Your task to perform on an android device: clear history in the chrome app Image 0: 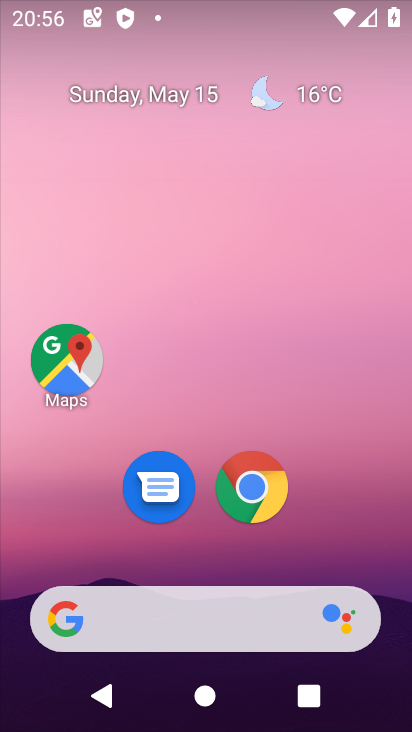
Step 0: click (246, 483)
Your task to perform on an android device: clear history in the chrome app Image 1: 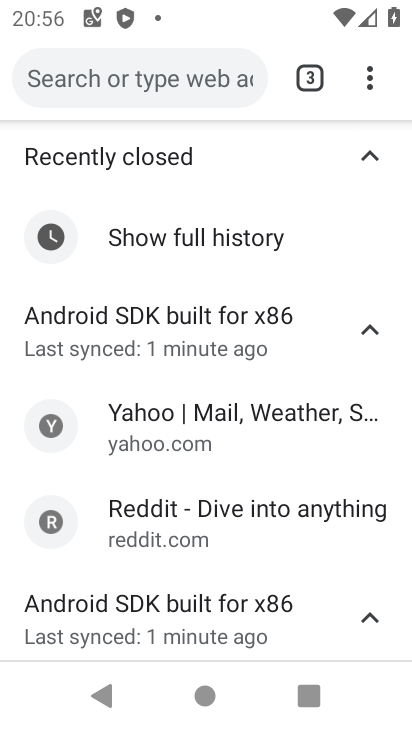
Step 1: click (366, 69)
Your task to perform on an android device: clear history in the chrome app Image 2: 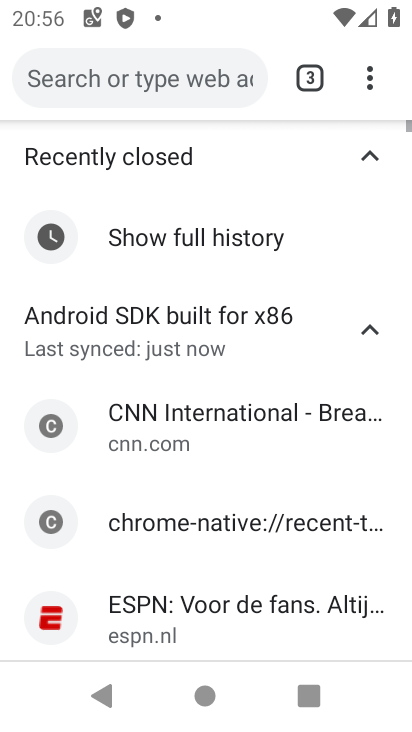
Step 2: click (371, 74)
Your task to perform on an android device: clear history in the chrome app Image 3: 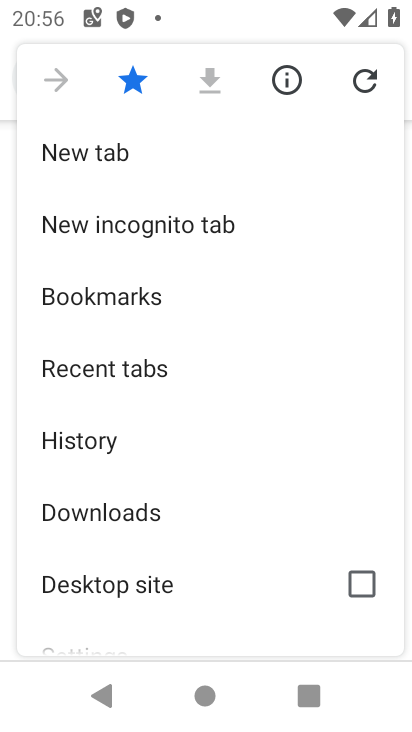
Step 3: click (72, 440)
Your task to perform on an android device: clear history in the chrome app Image 4: 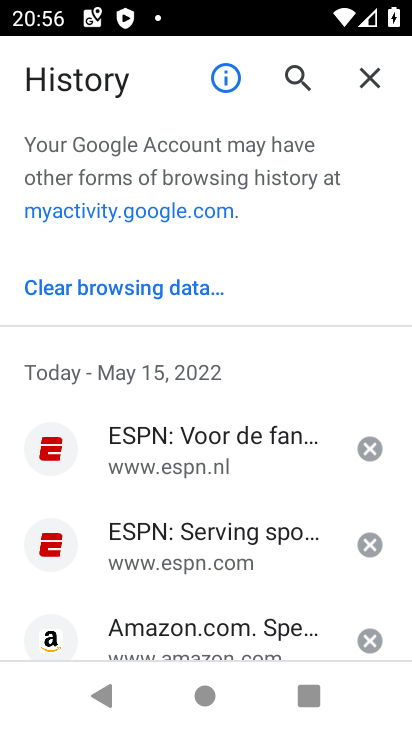
Step 4: click (84, 289)
Your task to perform on an android device: clear history in the chrome app Image 5: 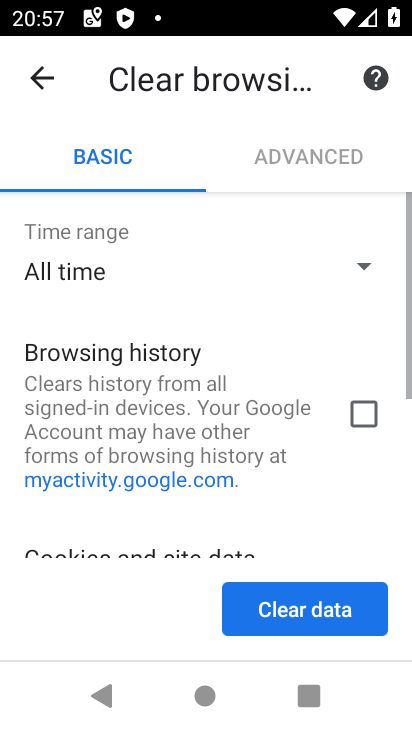
Step 5: click (294, 619)
Your task to perform on an android device: clear history in the chrome app Image 6: 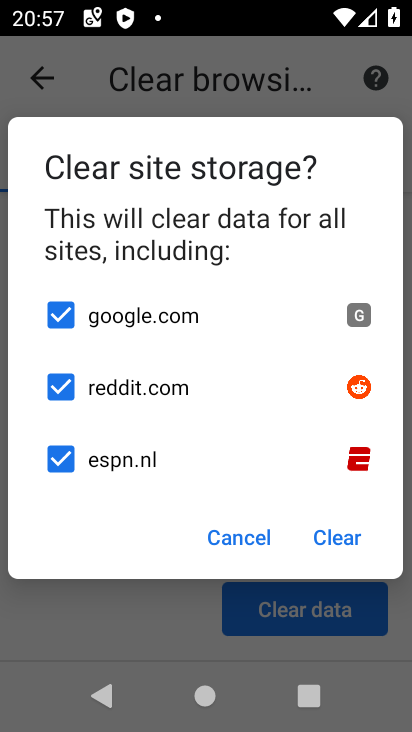
Step 6: click (338, 540)
Your task to perform on an android device: clear history in the chrome app Image 7: 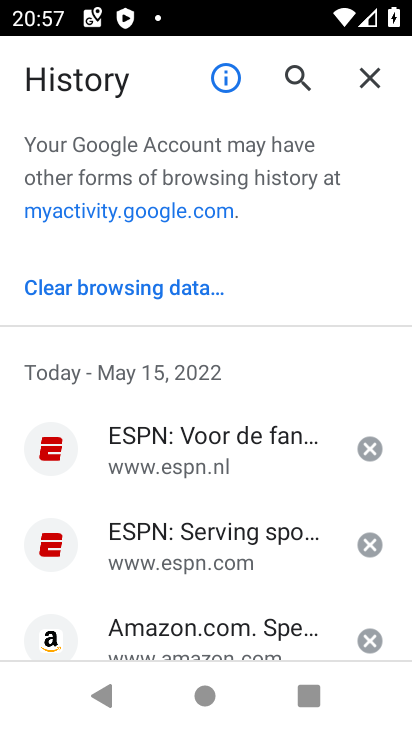
Step 7: task complete